Your task to perform on an android device: turn off data saver in the chrome app Image 0: 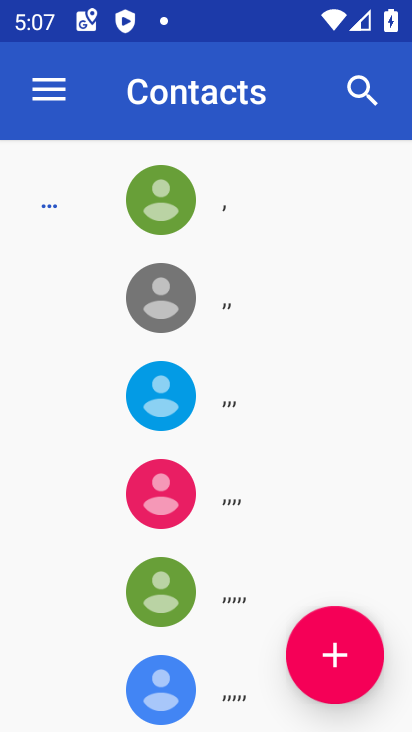
Step 0: press home button
Your task to perform on an android device: turn off data saver in the chrome app Image 1: 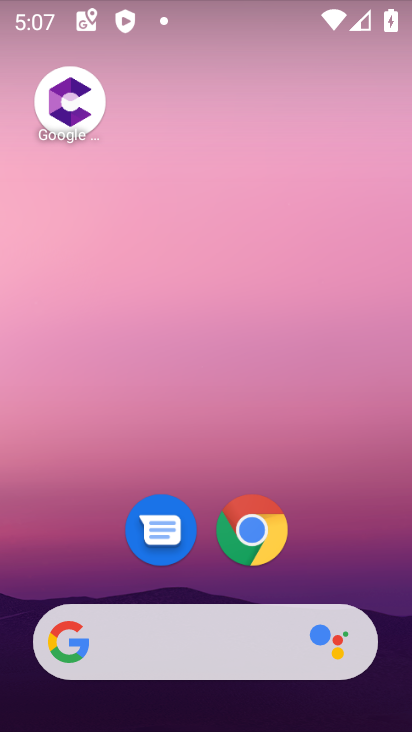
Step 1: drag from (210, 571) to (205, 95)
Your task to perform on an android device: turn off data saver in the chrome app Image 2: 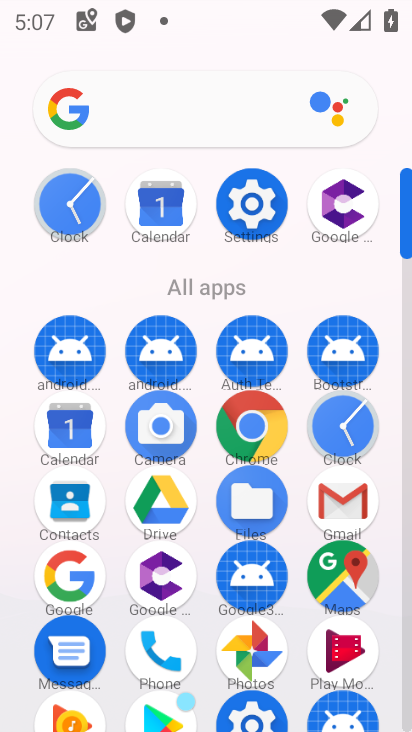
Step 2: click (248, 417)
Your task to perform on an android device: turn off data saver in the chrome app Image 3: 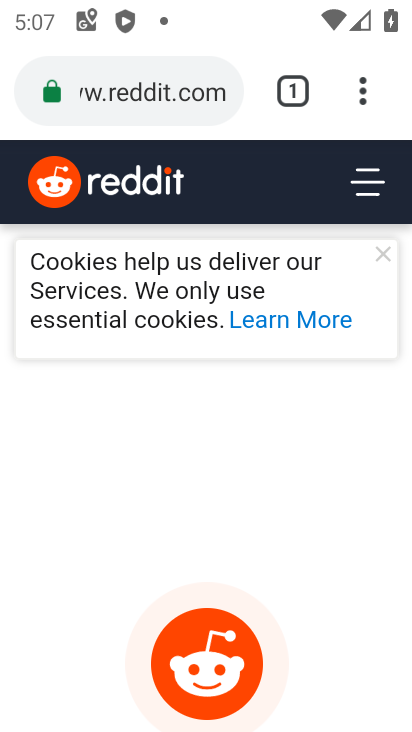
Step 3: click (357, 99)
Your task to perform on an android device: turn off data saver in the chrome app Image 4: 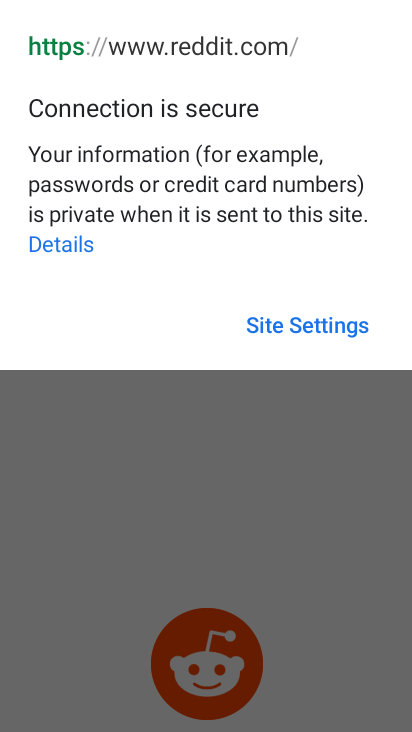
Step 4: click (281, 475)
Your task to perform on an android device: turn off data saver in the chrome app Image 5: 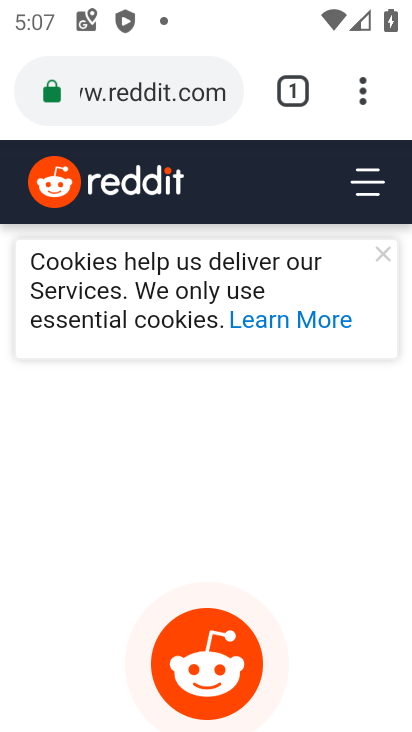
Step 5: click (358, 100)
Your task to perform on an android device: turn off data saver in the chrome app Image 6: 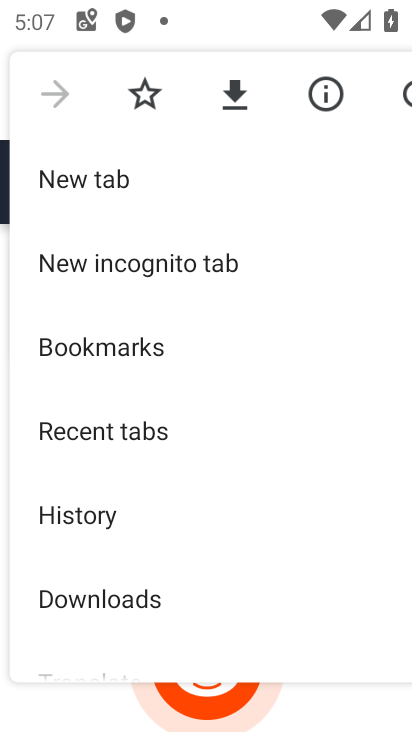
Step 6: drag from (154, 580) to (145, 345)
Your task to perform on an android device: turn off data saver in the chrome app Image 7: 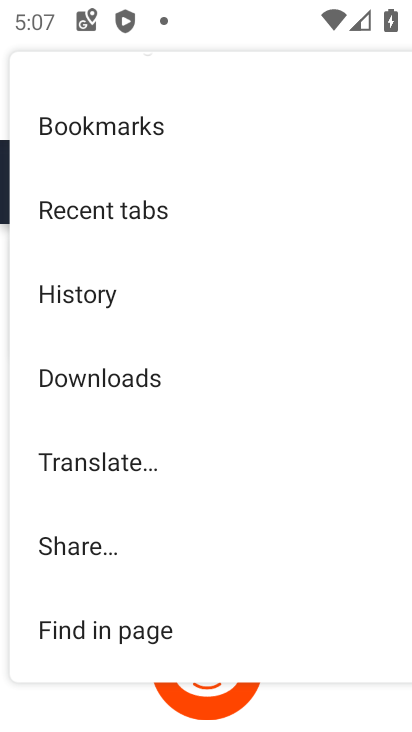
Step 7: drag from (93, 584) to (165, 294)
Your task to perform on an android device: turn off data saver in the chrome app Image 8: 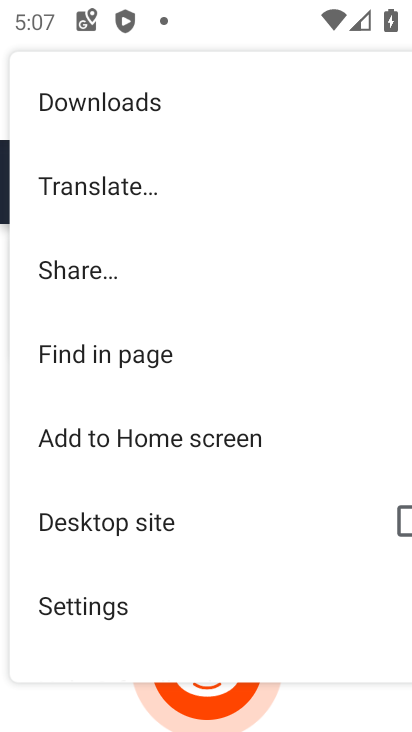
Step 8: click (104, 609)
Your task to perform on an android device: turn off data saver in the chrome app Image 9: 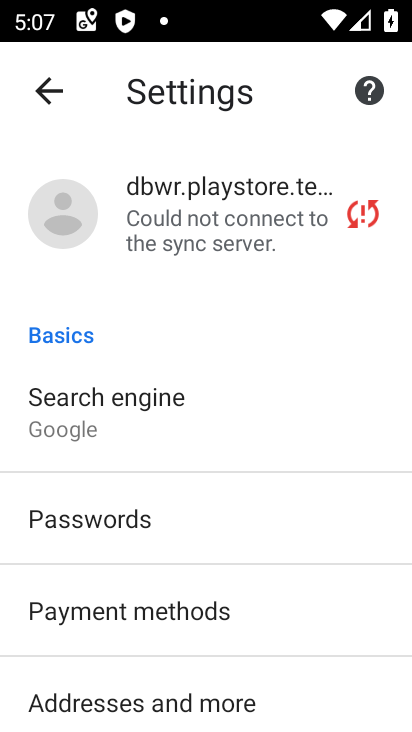
Step 9: drag from (124, 650) to (221, 333)
Your task to perform on an android device: turn off data saver in the chrome app Image 10: 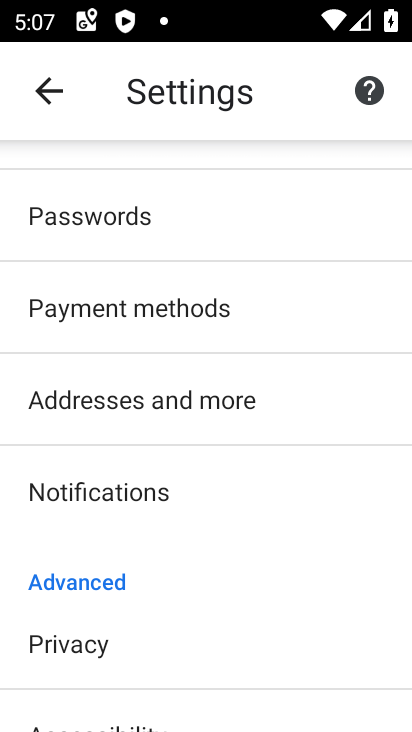
Step 10: drag from (169, 617) to (197, 329)
Your task to perform on an android device: turn off data saver in the chrome app Image 11: 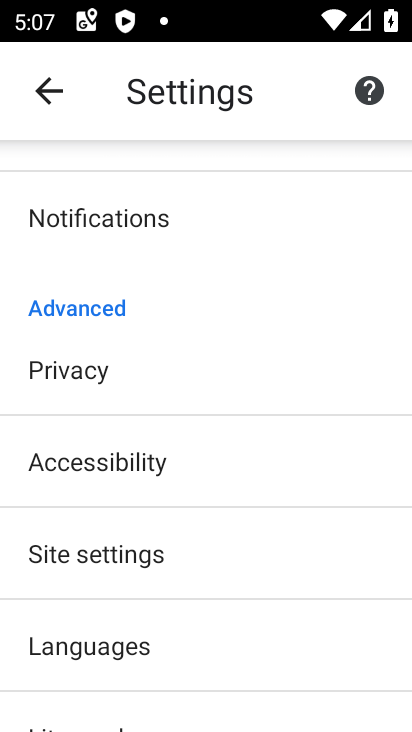
Step 11: drag from (141, 634) to (207, 388)
Your task to perform on an android device: turn off data saver in the chrome app Image 12: 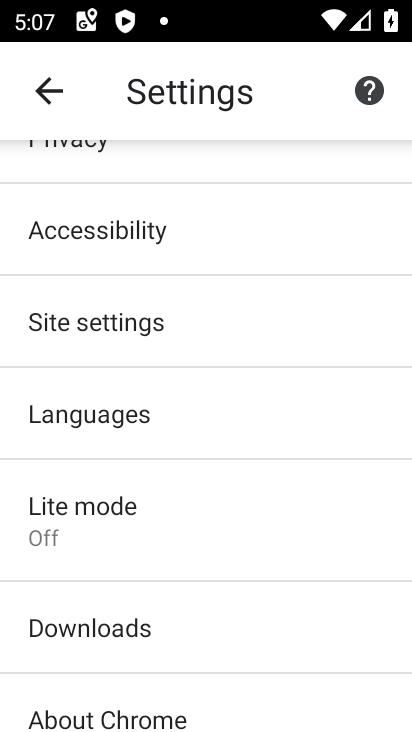
Step 12: click (151, 535)
Your task to perform on an android device: turn off data saver in the chrome app Image 13: 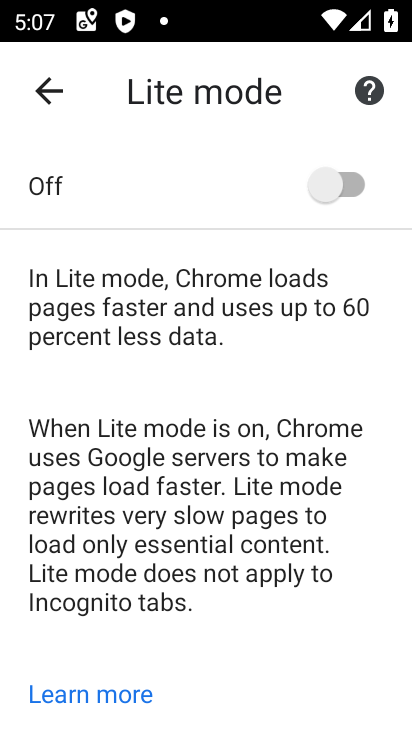
Step 13: task complete